Your task to perform on an android device: manage bookmarks in the chrome app Image 0: 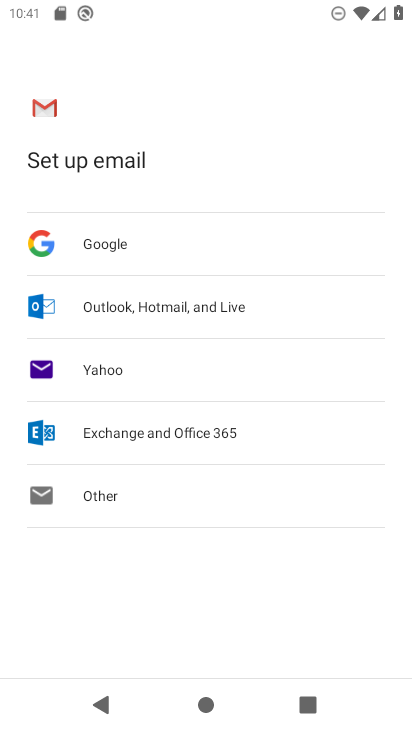
Step 0: drag from (179, 533) to (256, 247)
Your task to perform on an android device: manage bookmarks in the chrome app Image 1: 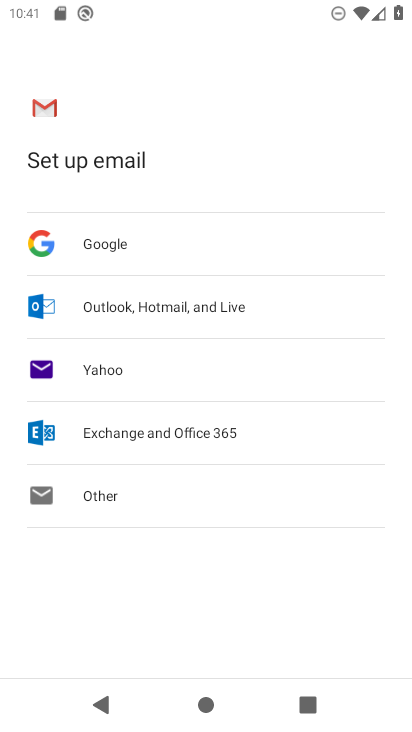
Step 1: press home button
Your task to perform on an android device: manage bookmarks in the chrome app Image 2: 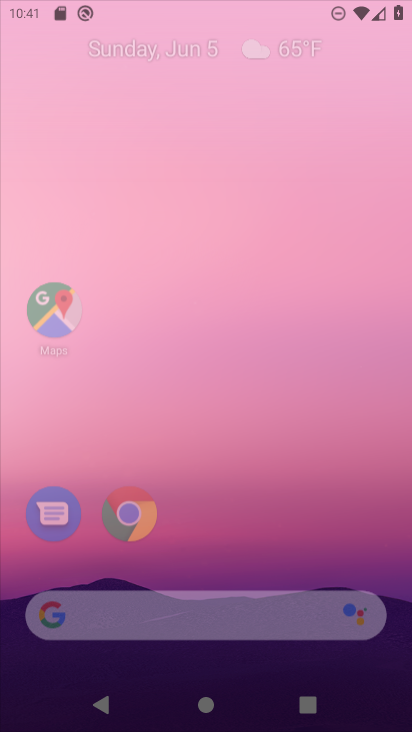
Step 2: drag from (205, 476) to (242, 124)
Your task to perform on an android device: manage bookmarks in the chrome app Image 3: 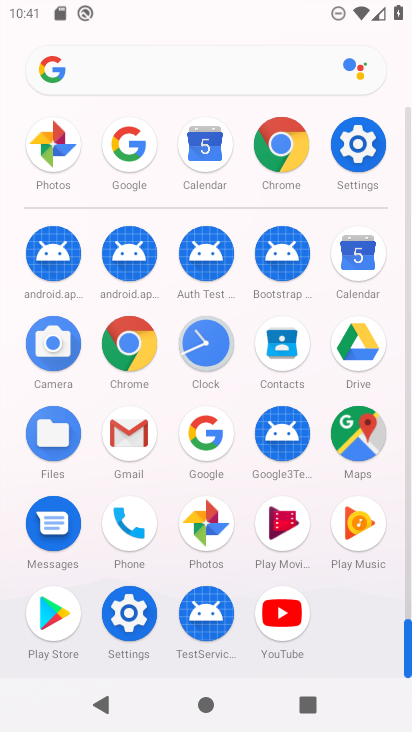
Step 3: click (136, 337)
Your task to perform on an android device: manage bookmarks in the chrome app Image 4: 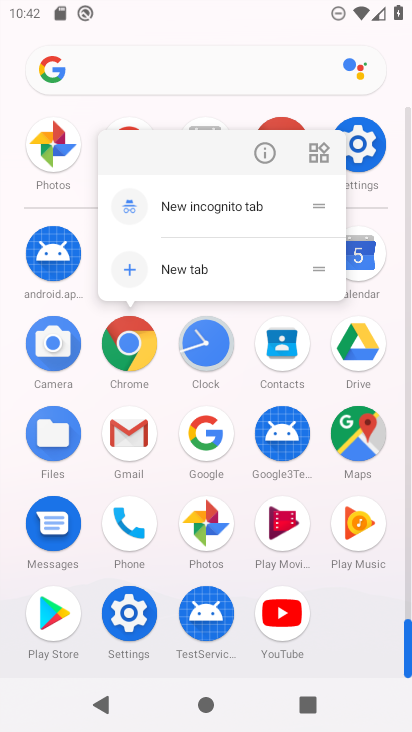
Step 4: click (261, 159)
Your task to perform on an android device: manage bookmarks in the chrome app Image 5: 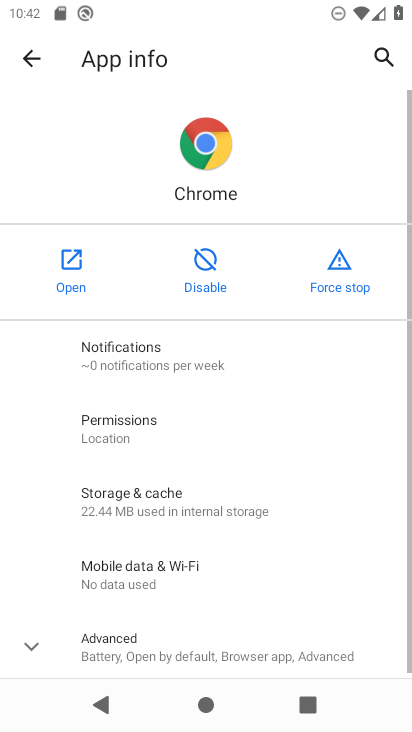
Step 5: click (76, 261)
Your task to perform on an android device: manage bookmarks in the chrome app Image 6: 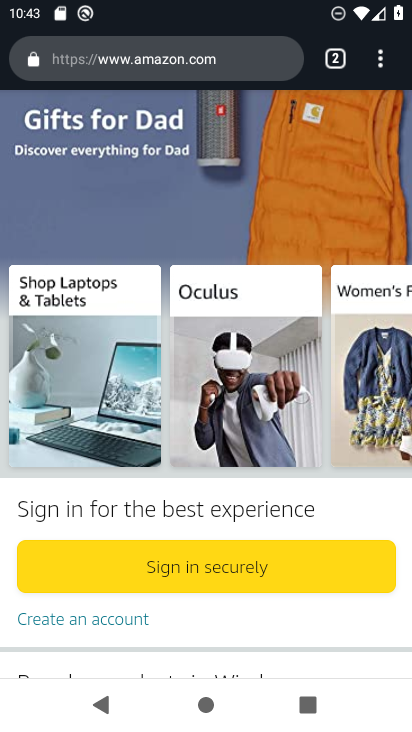
Step 6: drag from (221, 505) to (294, 154)
Your task to perform on an android device: manage bookmarks in the chrome app Image 7: 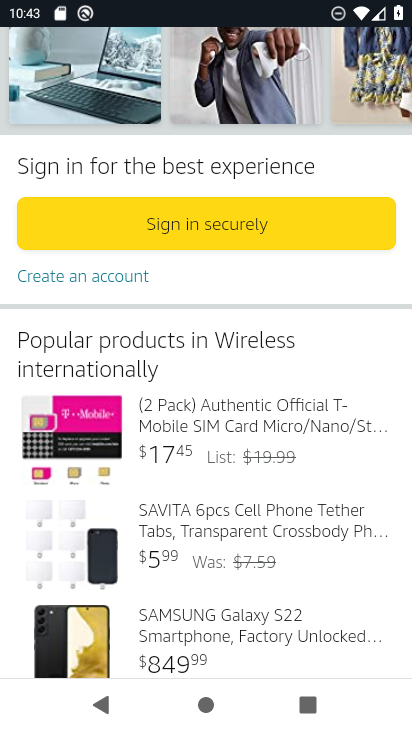
Step 7: drag from (354, 191) to (344, 611)
Your task to perform on an android device: manage bookmarks in the chrome app Image 8: 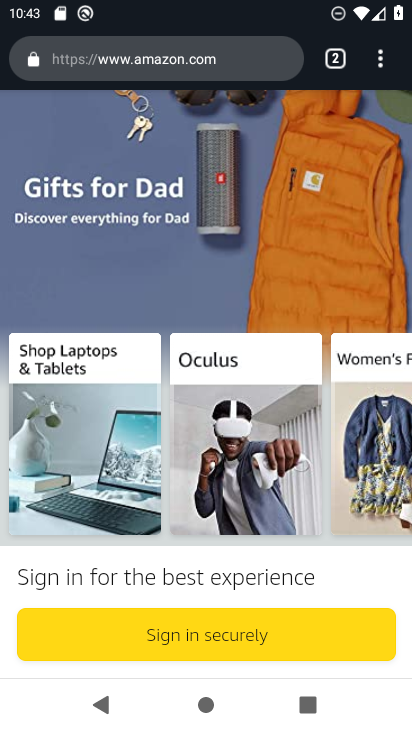
Step 8: click (380, 51)
Your task to perform on an android device: manage bookmarks in the chrome app Image 9: 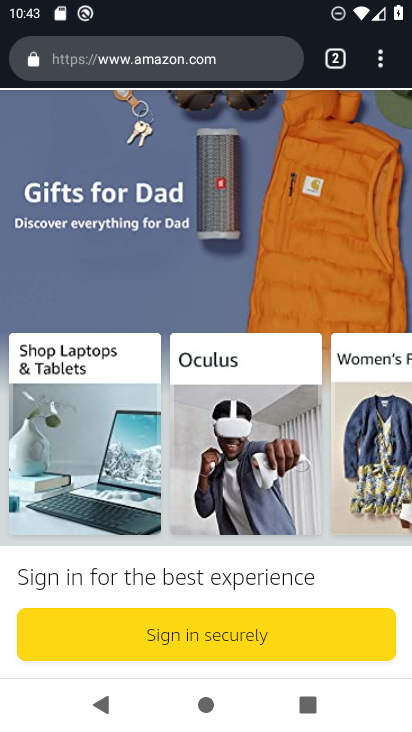
Step 9: drag from (379, 49) to (221, 224)
Your task to perform on an android device: manage bookmarks in the chrome app Image 10: 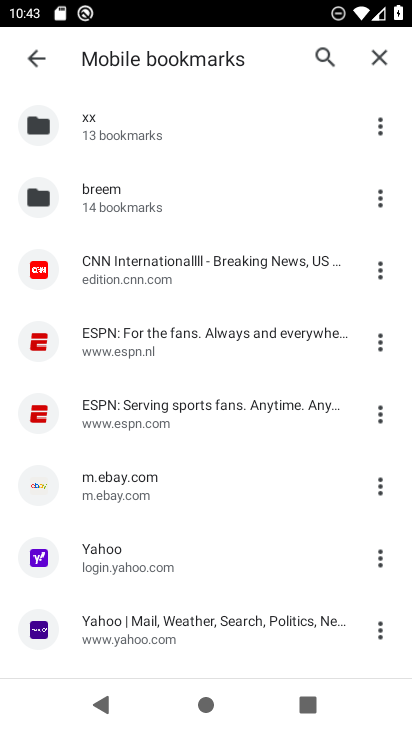
Step 10: drag from (179, 343) to (225, 181)
Your task to perform on an android device: manage bookmarks in the chrome app Image 11: 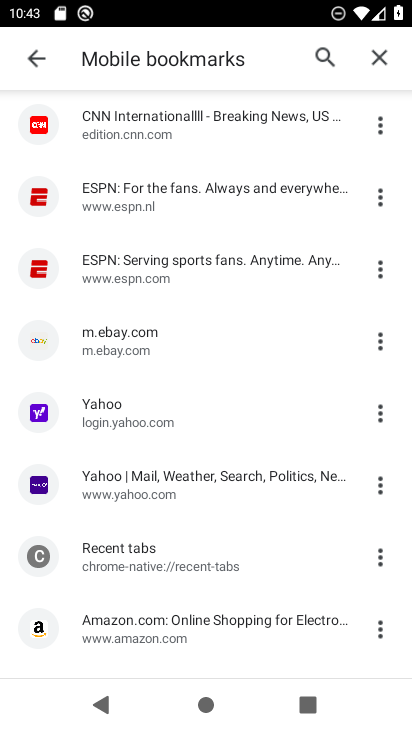
Step 11: drag from (229, 441) to (301, 243)
Your task to perform on an android device: manage bookmarks in the chrome app Image 12: 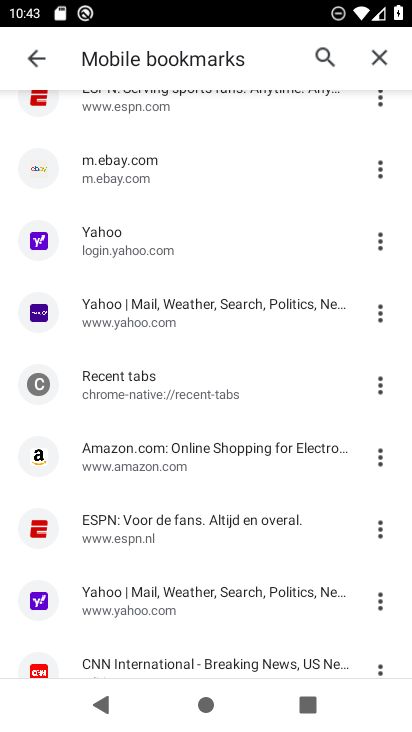
Step 12: drag from (234, 356) to (274, 717)
Your task to perform on an android device: manage bookmarks in the chrome app Image 13: 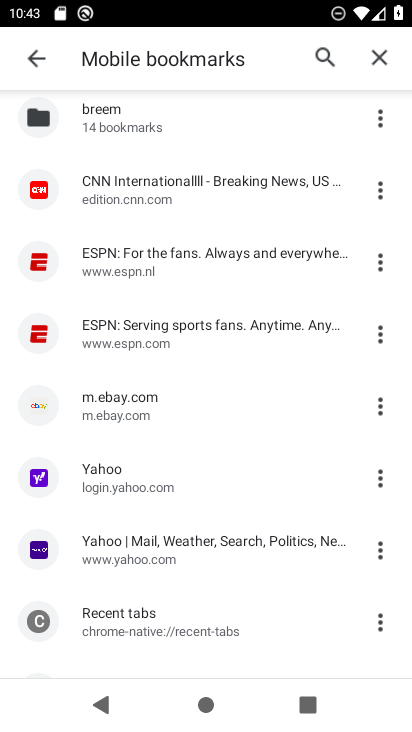
Step 13: click (388, 257)
Your task to perform on an android device: manage bookmarks in the chrome app Image 14: 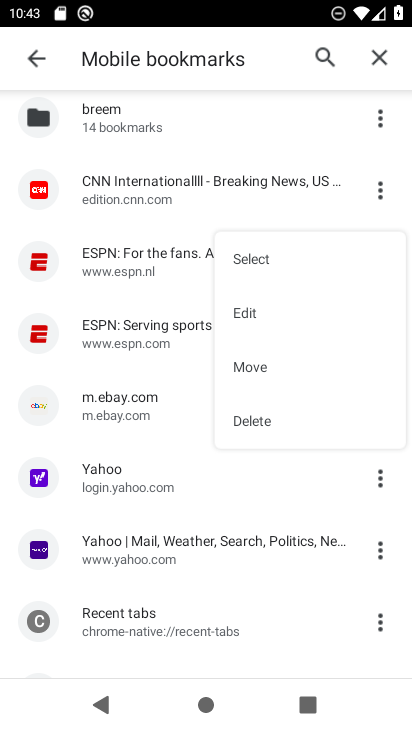
Step 14: click (277, 299)
Your task to perform on an android device: manage bookmarks in the chrome app Image 15: 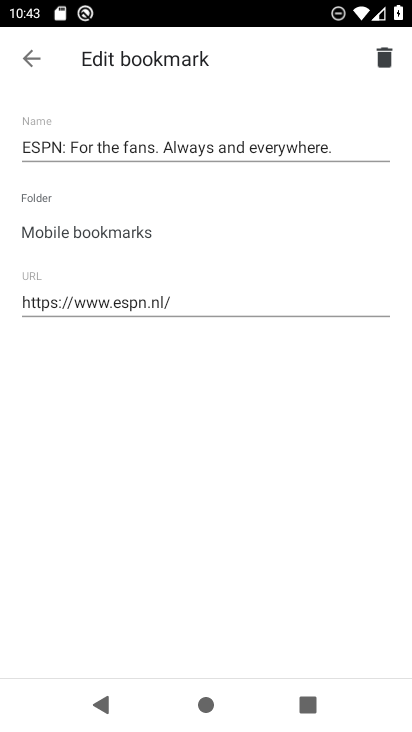
Step 15: drag from (248, 548) to (300, 209)
Your task to perform on an android device: manage bookmarks in the chrome app Image 16: 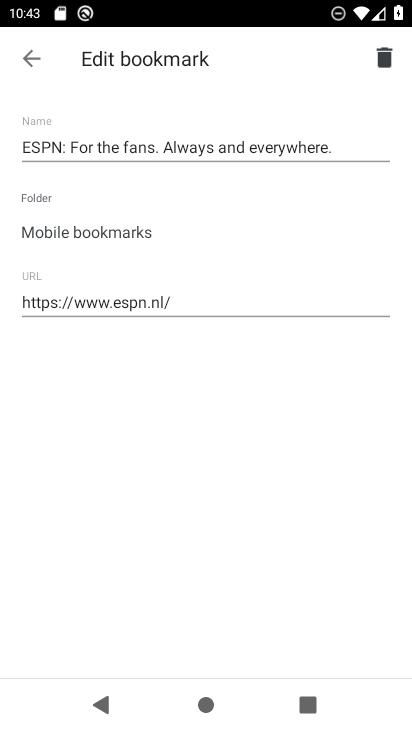
Step 16: click (366, 53)
Your task to perform on an android device: manage bookmarks in the chrome app Image 17: 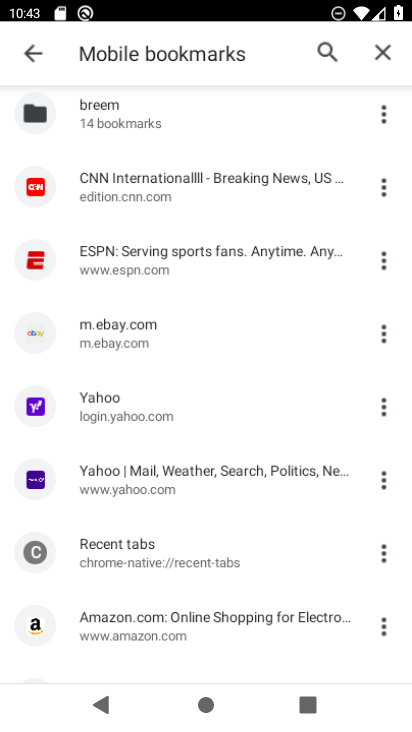
Step 17: task complete